Your task to perform on an android device: set an alarm Image 0: 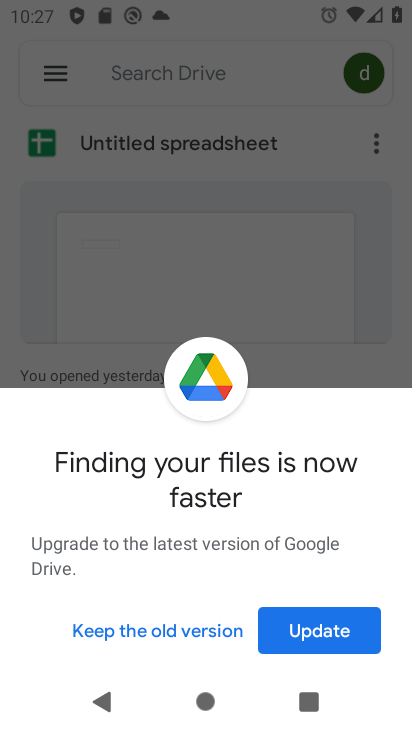
Step 0: press home button
Your task to perform on an android device: set an alarm Image 1: 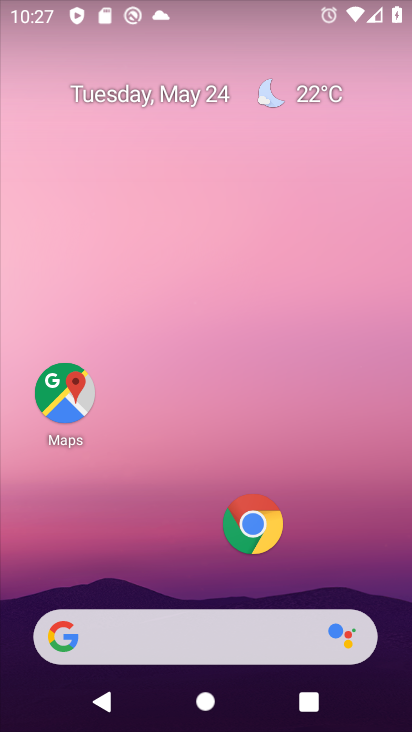
Step 1: drag from (171, 514) to (215, 67)
Your task to perform on an android device: set an alarm Image 2: 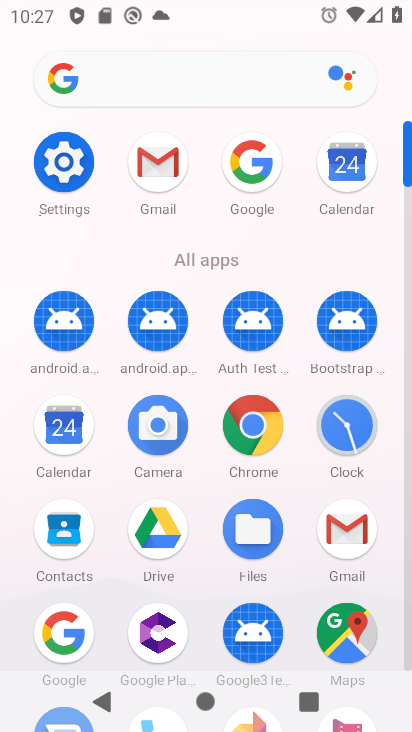
Step 2: click (342, 423)
Your task to perform on an android device: set an alarm Image 3: 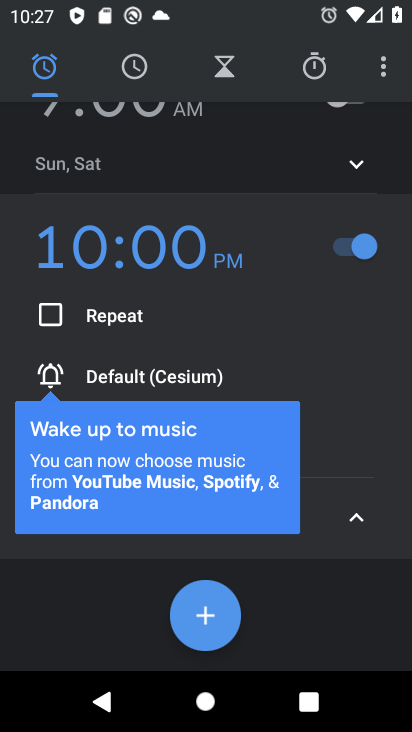
Step 3: click (48, 75)
Your task to perform on an android device: set an alarm Image 4: 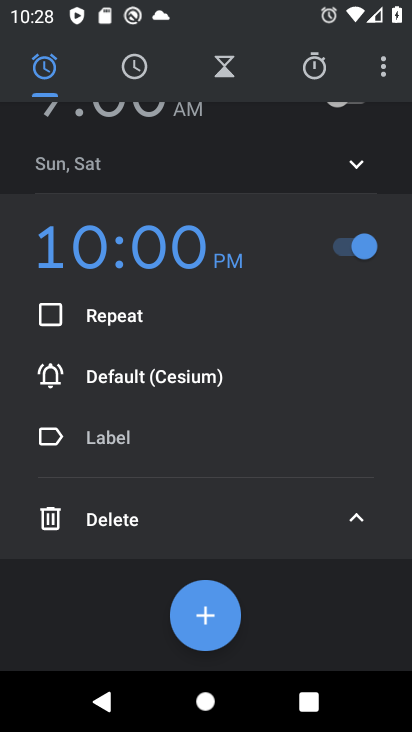
Step 4: click (205, 603)
Your task to perform on an android device: set an alarm Image 5: 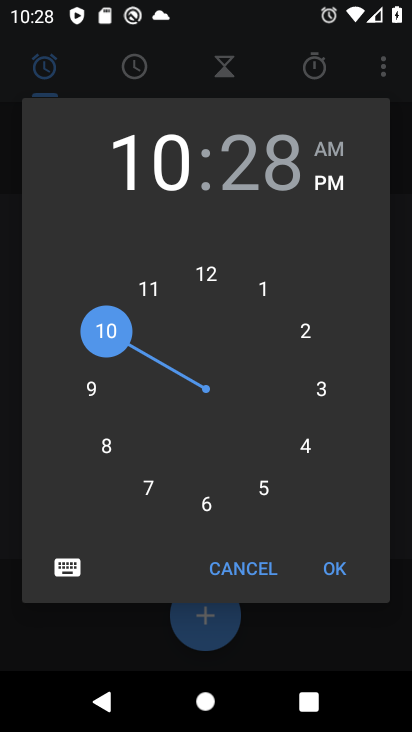
Step 5: click (247, 151)
Your task to perform on an android device: set an alarm Image 6: 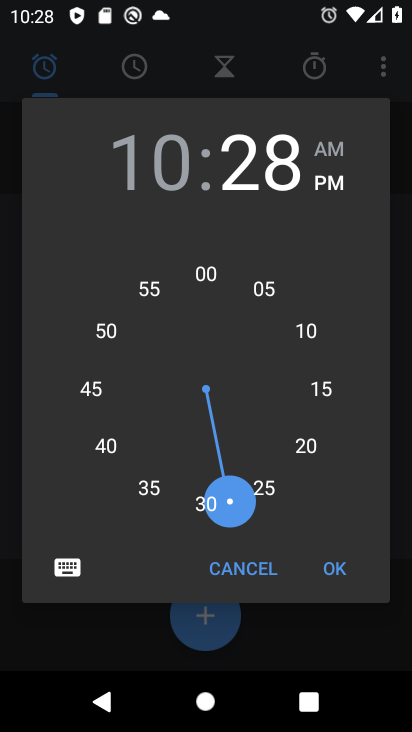
Step 6: click (210, 268)
Your task to perform on an android device: set an alarm Image 7: 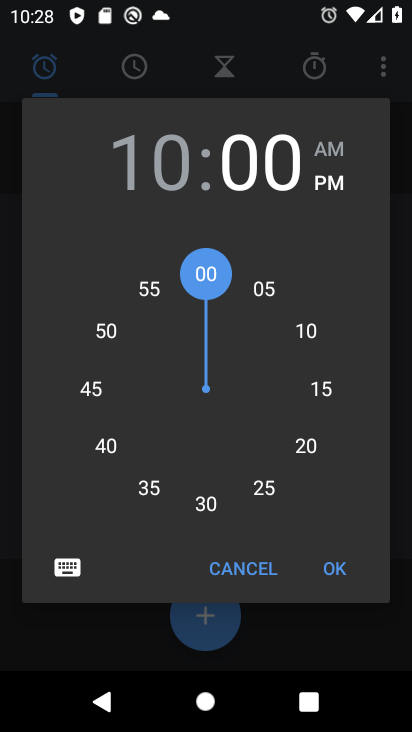
Step 7: click (331, 555)
Your task to perform on an android device: set an alarm Image 8: 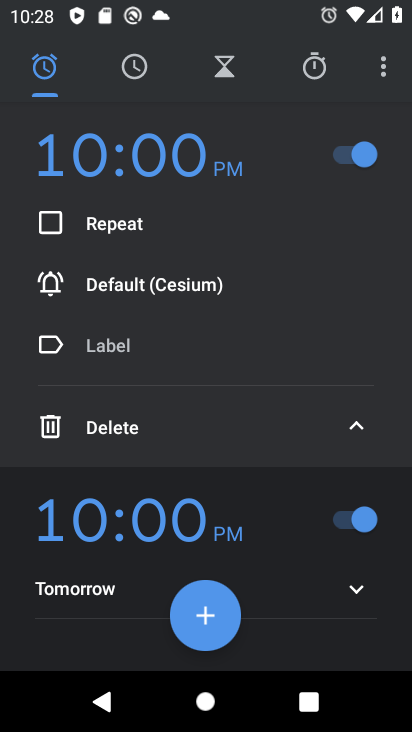
Step 8: task complete